Your task to perform on an android device: What is the news today? Image 0: 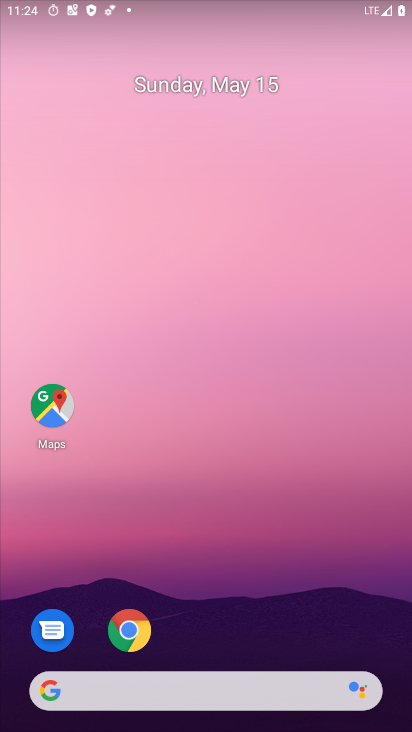
Step 0: click (142, 703)
Your task to perform on an android device: What is the news today? Image 1: 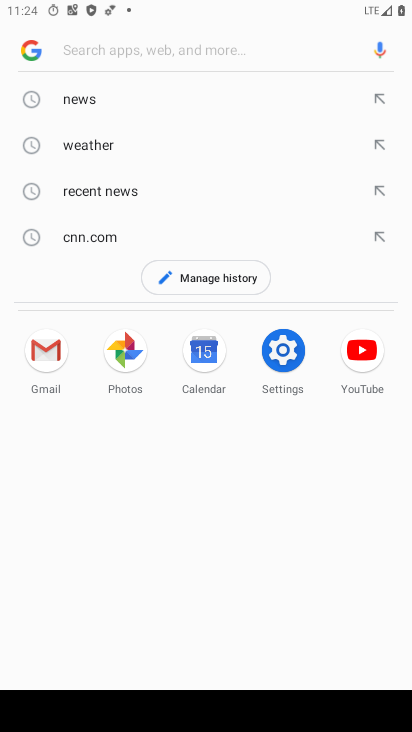
Step 1: type "news today"
Your task to perform on an android device: What is the news today? Image 2: 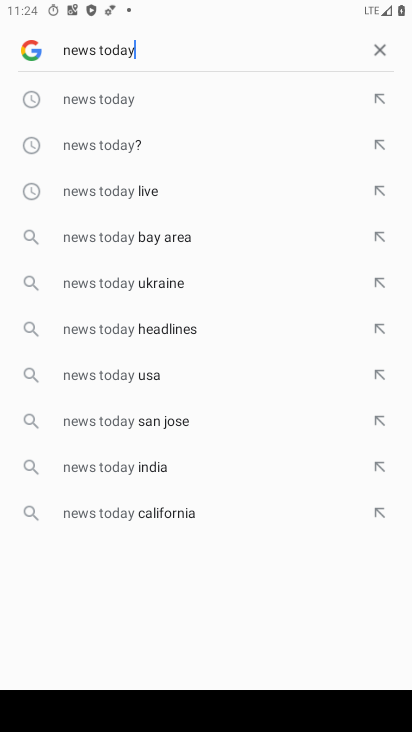
Step 2: click (114, 150)
Your task to perform on an android device: What is the news today? Image 3: 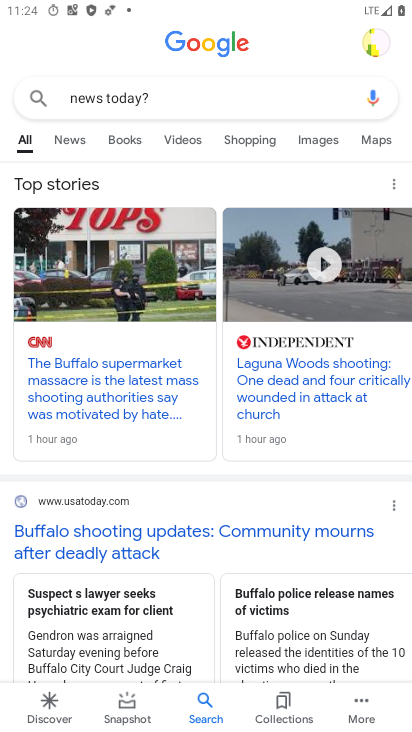
Step 3: task complete